Your task to perform on an android device: turn on data saver in the chrome app Image 0: 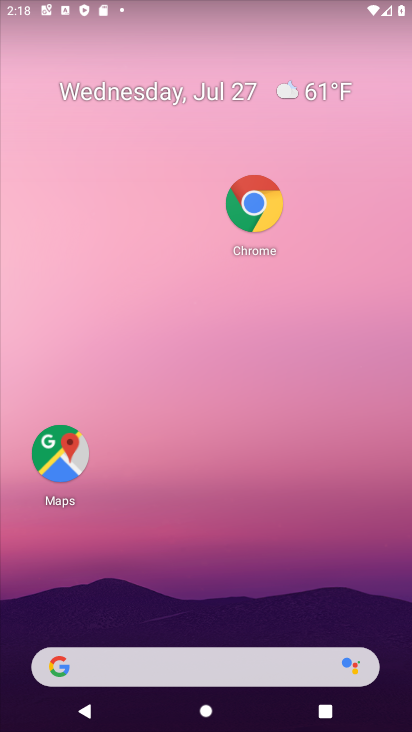
Step 0: click (250, 220)
Your task to perform on an android device: turn on data saver in the chrome app Image 1: 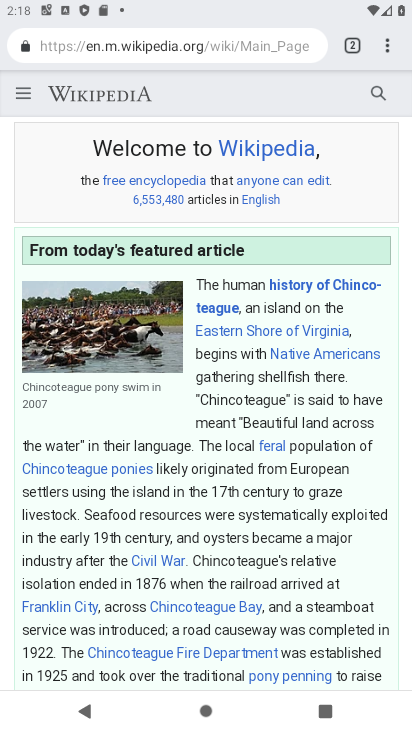
Step 1: click (400, 32)
Your task to perform on an android device: turn on data saver in the chrome app Image 2: 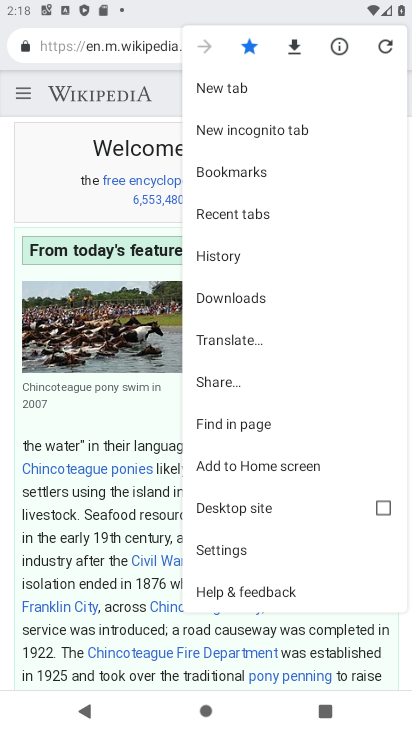
Step 2: click (243, 543)
Your task to perform on an android device: turn on data saver in the chrome app Image 3: 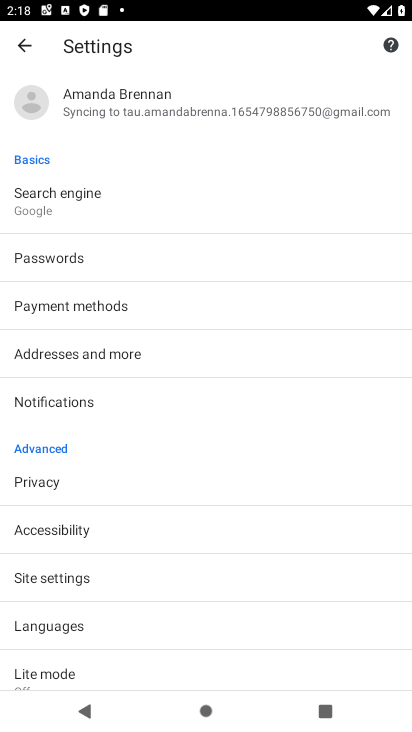
Step 3: click (101, 670)
Your task to perform on an android device: turn on data saver in the chrome app Image 4: 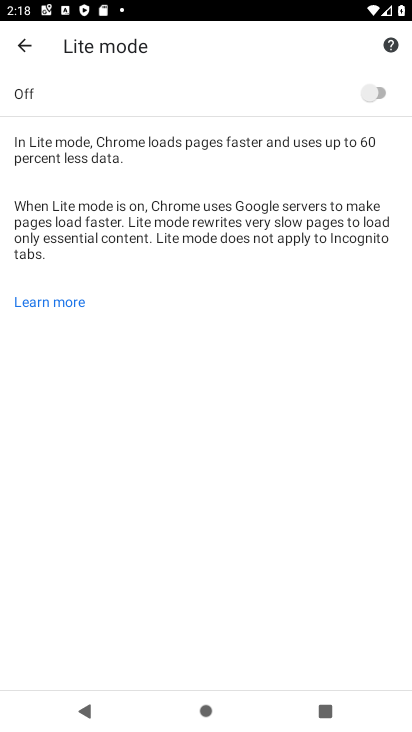
Step 4: click (378, 97)
Your task to perform on an android device: turn on data saver in the chrome app Image 5: 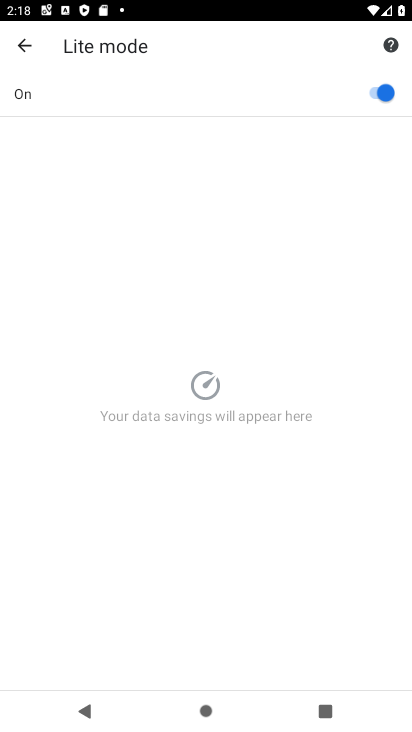
Step 5: task complete